Your task to perform on an android device: Show me popular games on the Play Store Image 0: 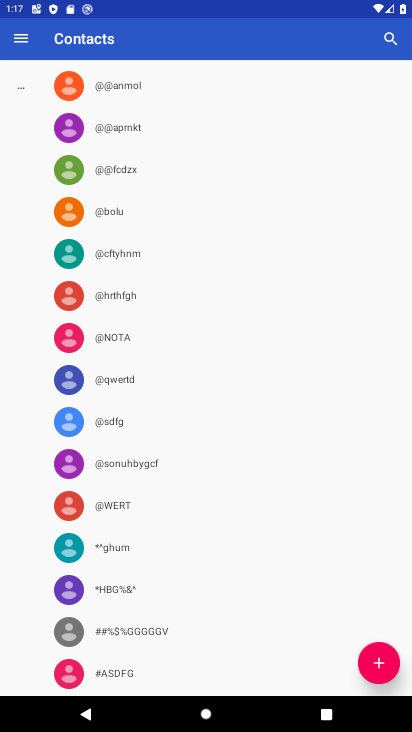
Step 0: press home button
Your task to perform on an android device: Show me popular games on the Play Store Image 1: 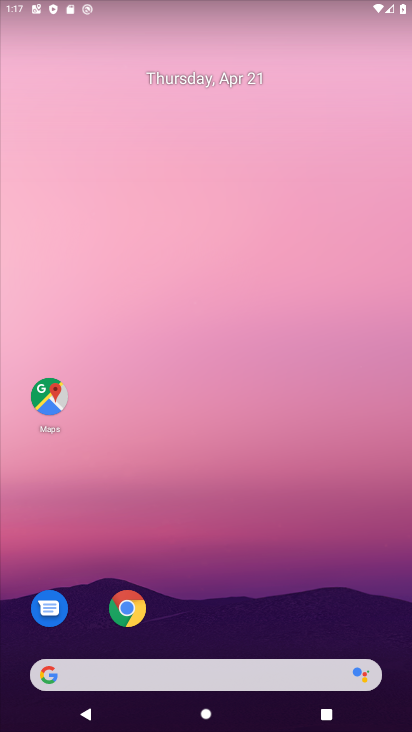
Step 1: drag from (282, 368) to (281, 79)
Your task to perform on an android device: Show me popular games on the Play Store Image 2: 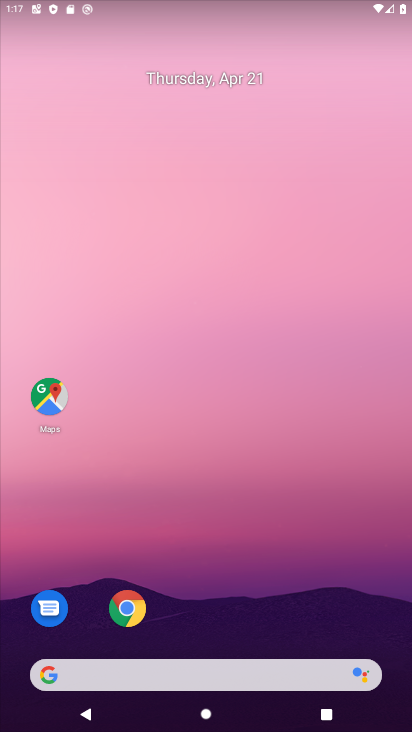
Step 2: drag from (325, 514) to (337, 50)
Your task to perform on an android device: Show me popular games on the Play Store Image 3: 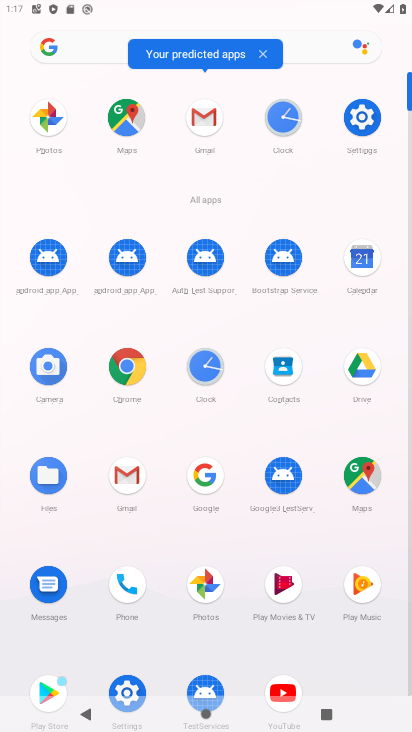
Step 3: drag from (333, 639) to (317, 409)
Your task to perform on an android device: Show me popular games on the Play Store Image 4: 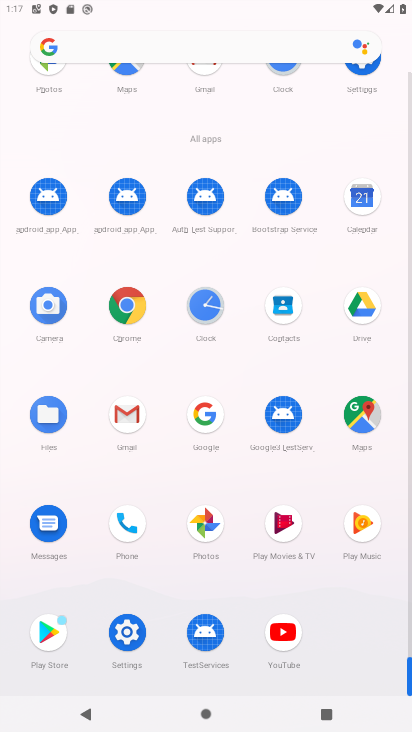
Step 4: click (59, 622)
Your task to perform on an android device: Show me popular games on the Play Store Image 5: 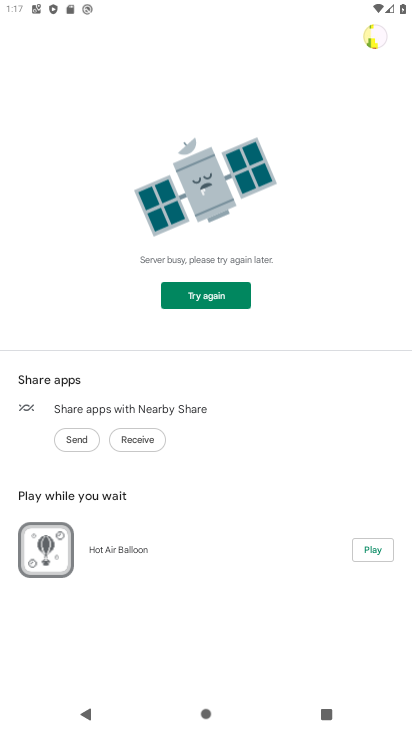
Step 5: press back button
Your task to perform on an android device: Show me popular games on the Play Store Image 6: 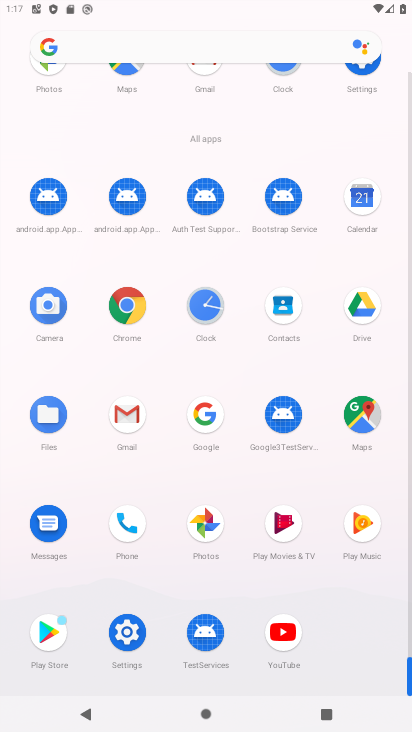
Step 6: click (61, 631)
Your task to perform on an android device: Show me popular games on the Play Store Image 7: 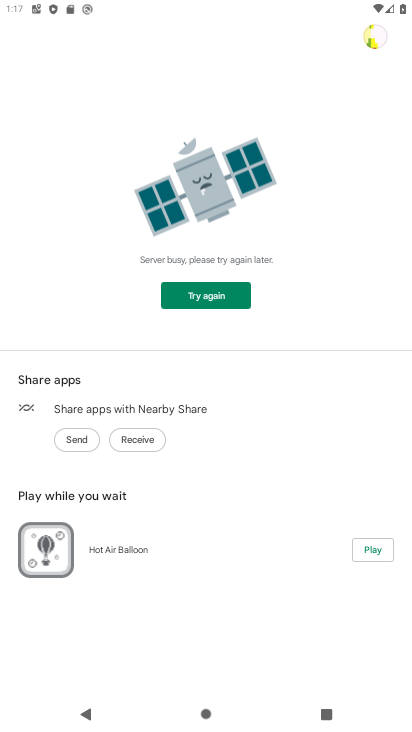
Step 7: click (205, 296)
Your task to perform on an android device: Show me popular games on the Play Store Image 8: 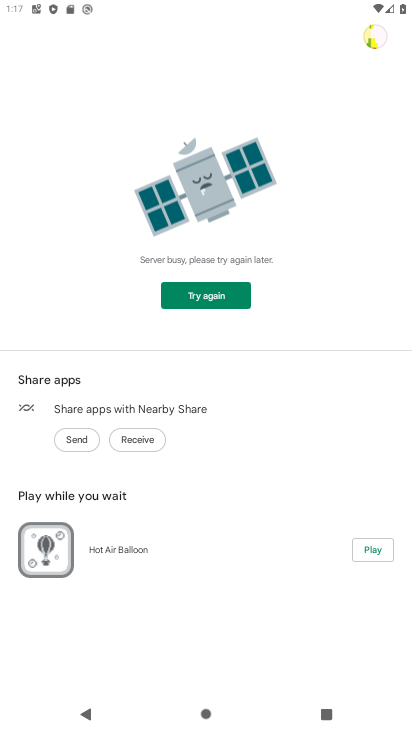
Step 8: click (205, 296)
Your task to perform on an android device: Show me popular games on the Play Store Image 9: 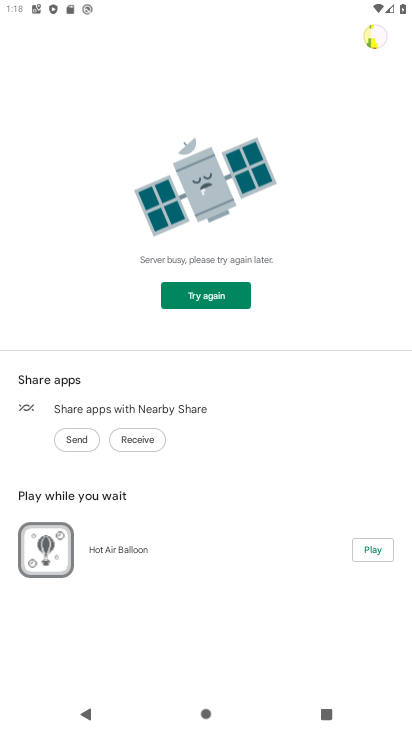
Step 9: task complete